Your task to perform on an android device: turn on improve location accuracy Image 0: 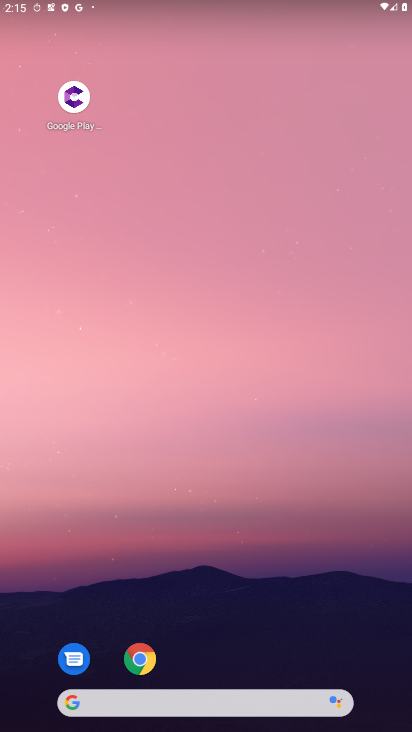
Step 0: drag from (194, 653) to (220, 24)
Your task to perform on an android device: turn on improve location accuracy Image 1: 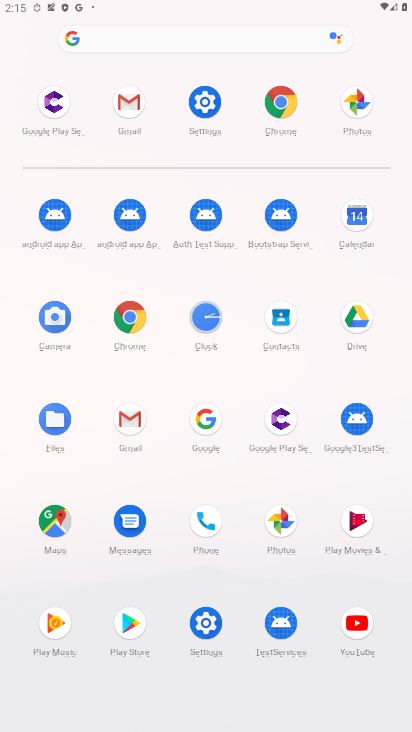
Step 1: click (207, 109)
Your task to perform on an android device: turn on improve location accuracy Image 2: 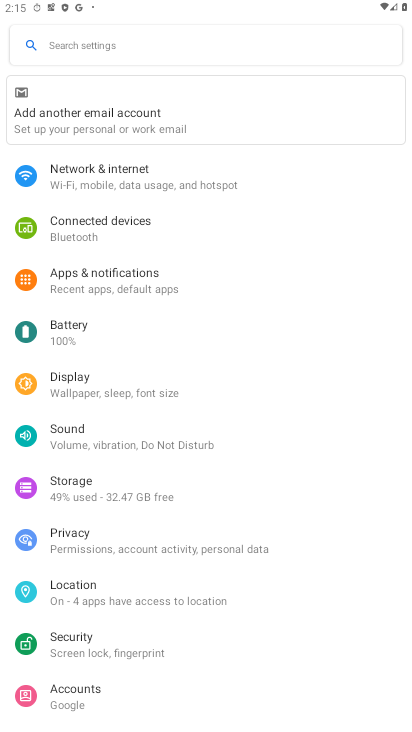
Step 2: click (82, 582)
Your task to perform on an android device: turn on improve location accuracy Image 3: 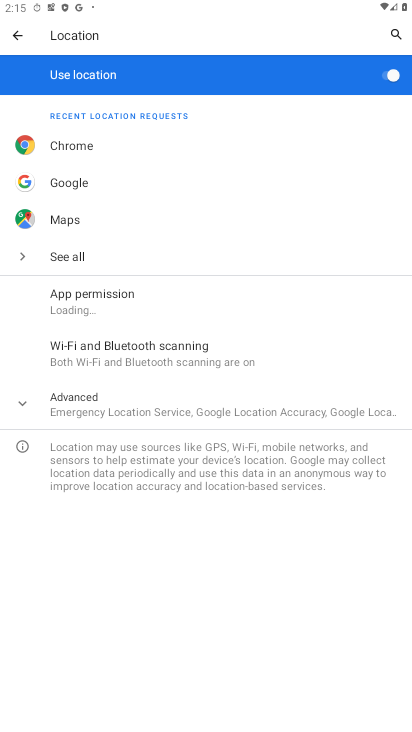
Step 3: click (80, 397)
Your task to perform on an android device: turn on improve location accuracy Image 4: 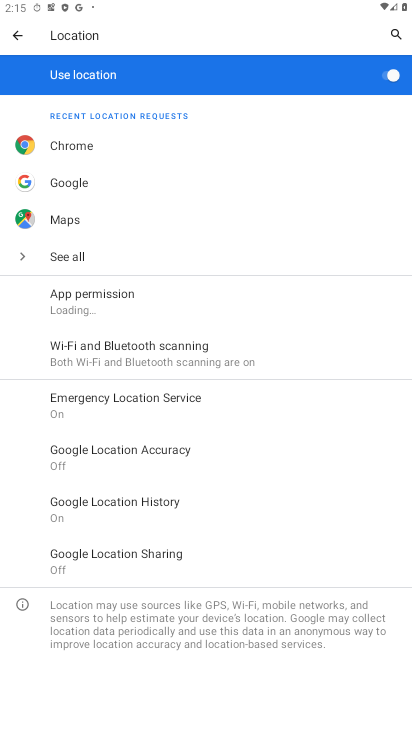
Step 4: click (105, 439)
Your task to perform on an android device: turn on improve location accuracy Image 5: 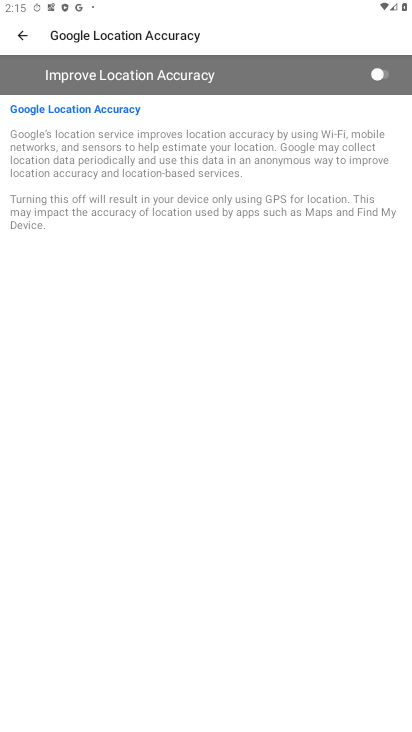
Step 5: click (372, 72)
Your task to perform on an android device: turn on improve location accuracy Image 6: 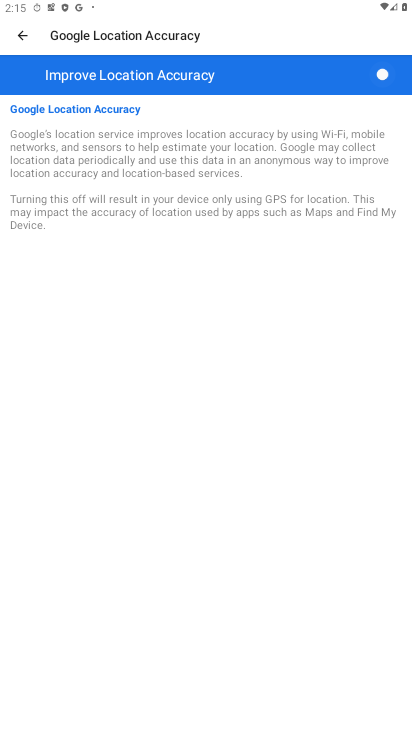
Step 6: task complete